Your task to perform on an android device: find which apps use the phone's location Image 0: 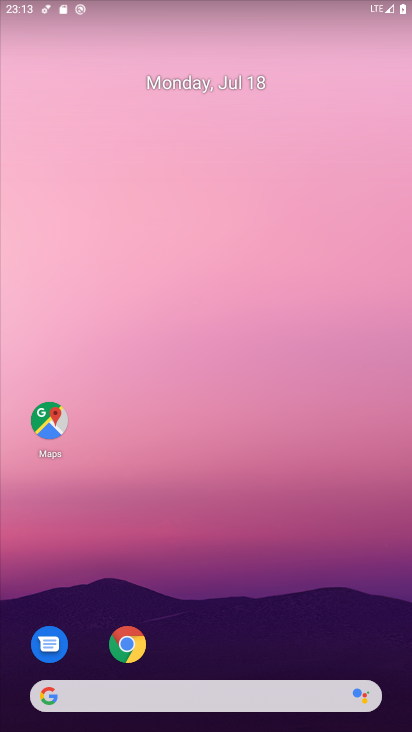
Step 0: drag from (361, 629) to (389, 145)
Your task to perform on an android device: find which apps use the phone's location Image 1: 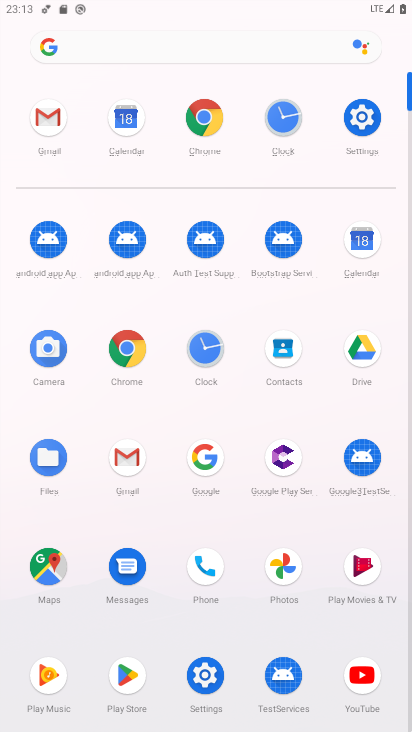
Step 1: click (365, 130)
Your task to perform on an android device: find which apps use the phone's location Image 2: 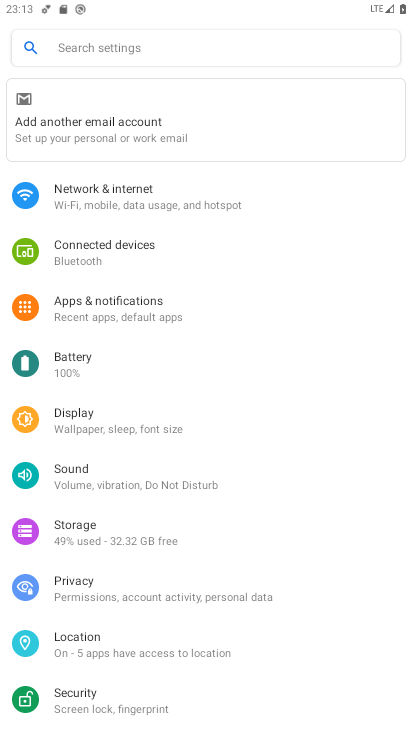
Step 2: drag from (306, 461) to (314, 347)
Your task to perform on an android device: find which apps use the phone's location Image 3: 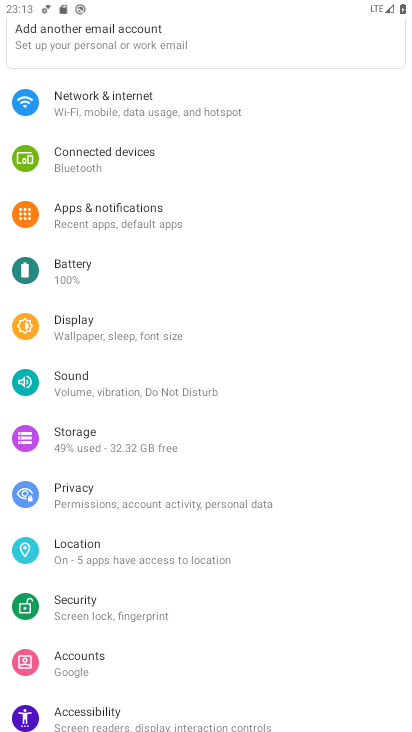
Step 3: drag from (304, 488) to (314, 310)
Your task to perform on an android device: find which apps use the phone's location Image 4: 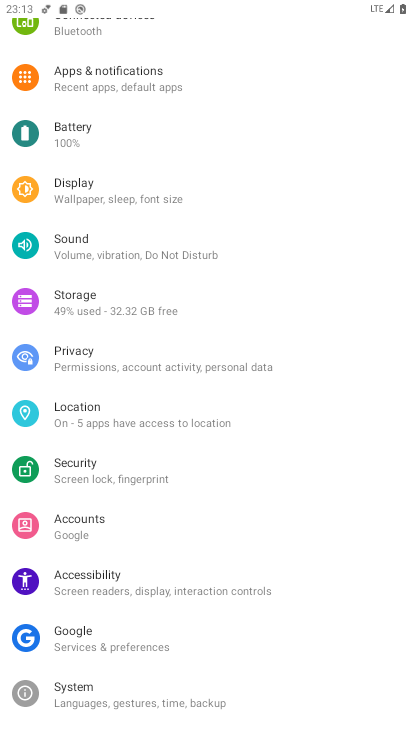
Step 4: drag from (290, 470) to (301, 369)
Your task to perform on an android device: find which apps use the phone's location Image 5: 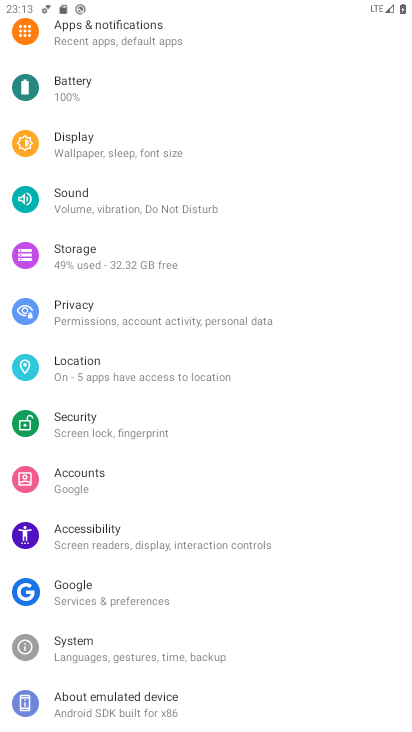
Step 5: drag from (302, 509) to (303, 401)
Your task to perform on an android device: find which apps use the phone's location Image 6: 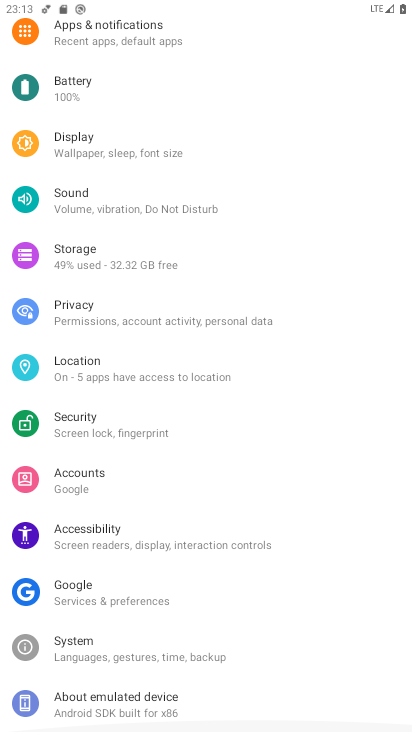
Step 6: drag from (308, 366) to (293, 448)
Your task to perform on an android device: find which apps use the phone's location Image 7: 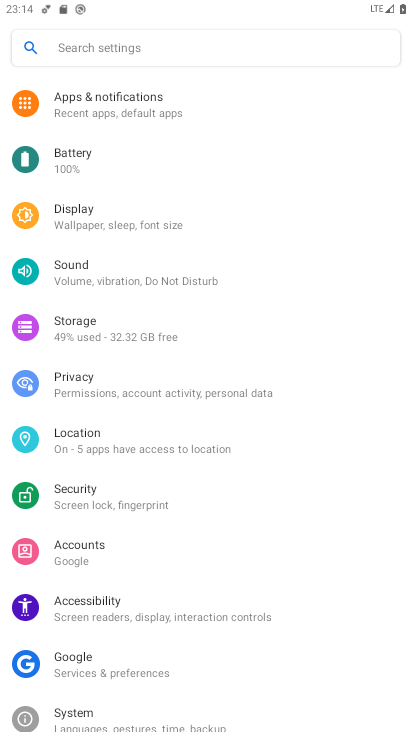
Step 7: click (218, 445)
Your task to perform on an android device: find which apps use the phone's location Image 8: 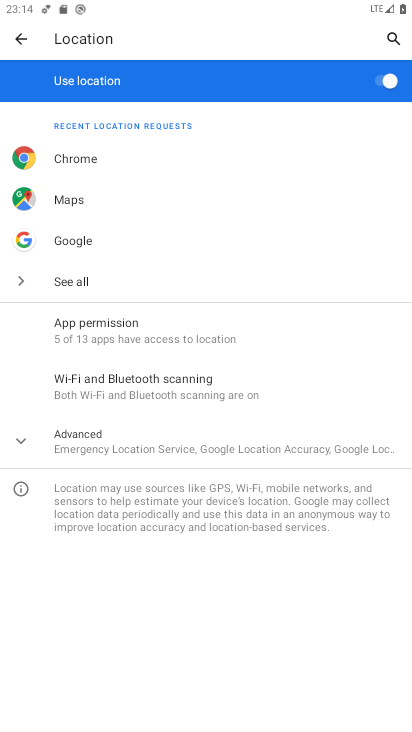
Step 8: click (173, 329)
Your task to perform on an android device: find which apps use the phone's location Image 9: 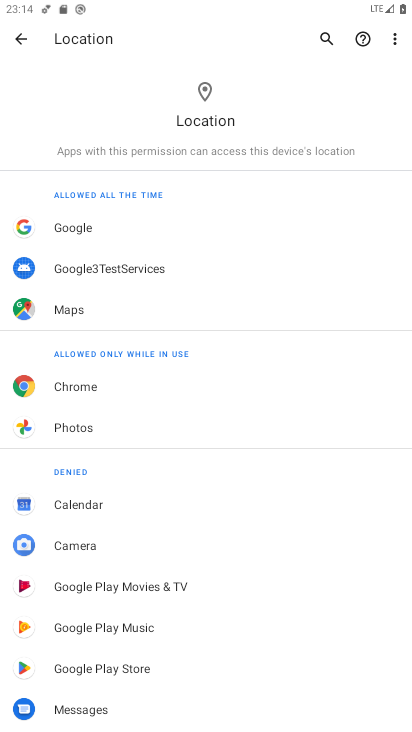
Step 9: drag from (296, 578) to (290, 455)
Your task to perform on an android device: find which apps use the phone's location Image 10: 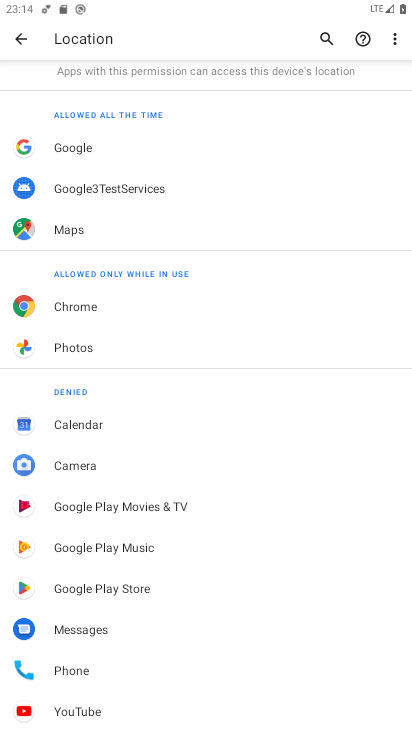
Step 10: drag from (292, 573) to (289, 464)
Your task to perform on an android device: find which apps use the phone's location Image 11: 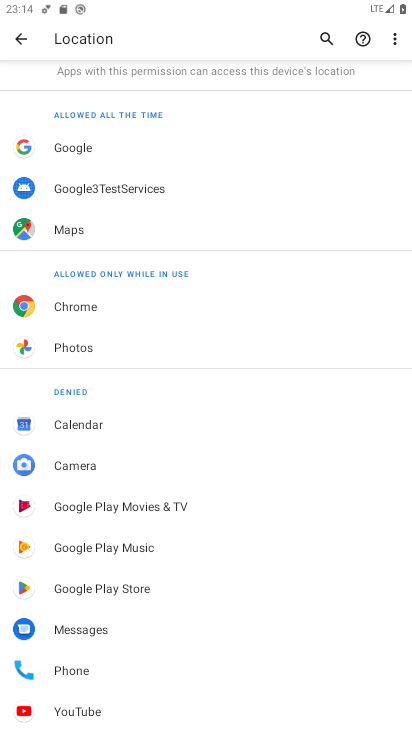
Step 11: drag from (300, 348) to (298, 462)
Your task to perform on an android device: find which apps use the phone's location Image 12: 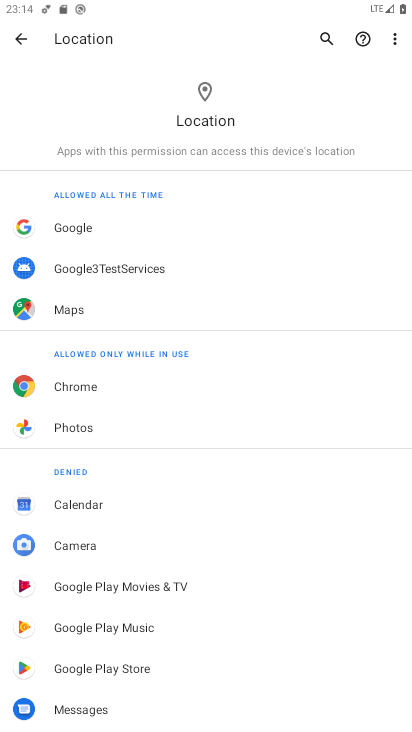
Step 12: click (107, 429)
Your task to perform on an android device: find which apps use the phone's location Image 13: 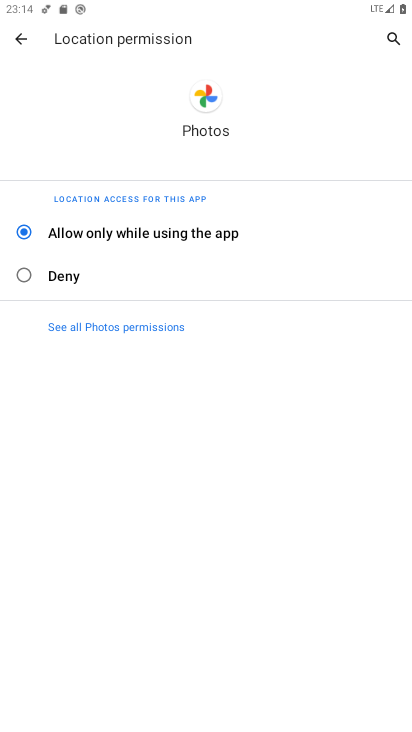
Step 13: task complete